Your task to perform on an android device: toggle priority inbox in the gmail app Image 0: 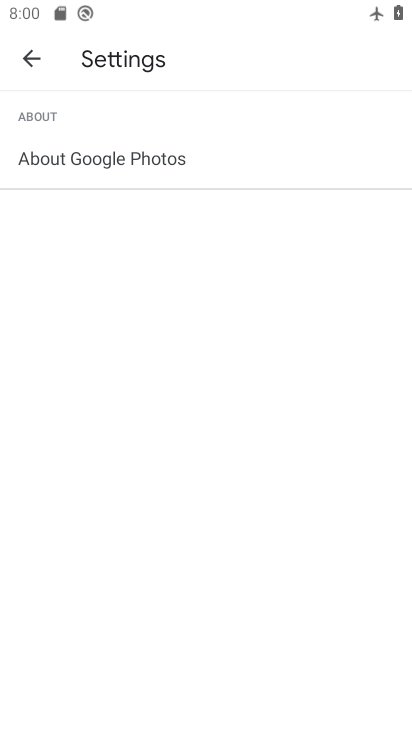
Step 0: click (209, 613)
Your task to perform on an android device: toggle priority inbox in the gmail app Image 1: 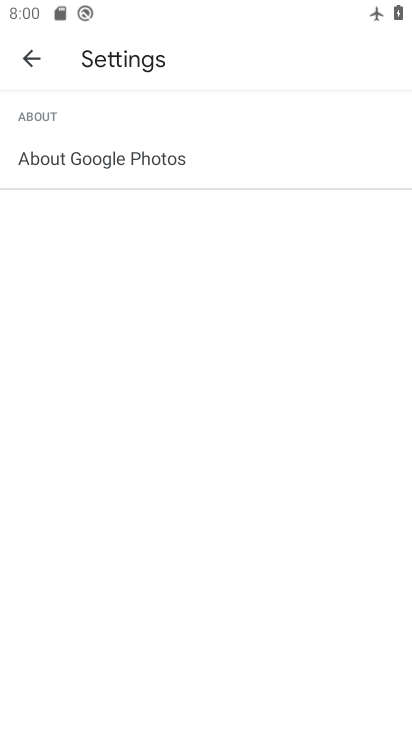
Step 1: press home button
Your task to perform on an android device: toggle priority inbox in the gmail app Image 2: 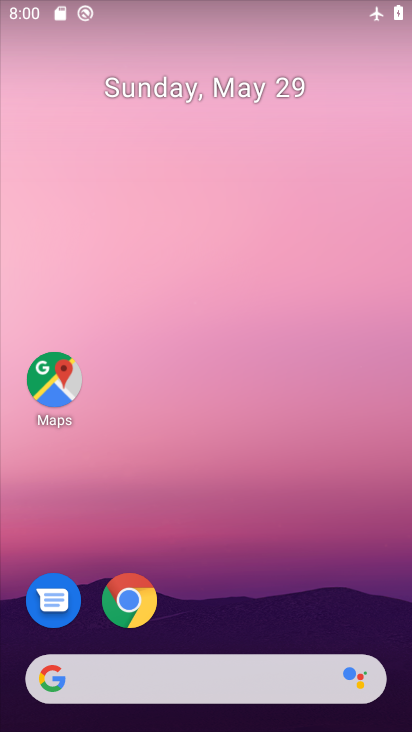
Step 2: drag from (242, 604) to (225, 6)
Your task to perform on an android device: toggle priority inbox in the gmail app Image 3: 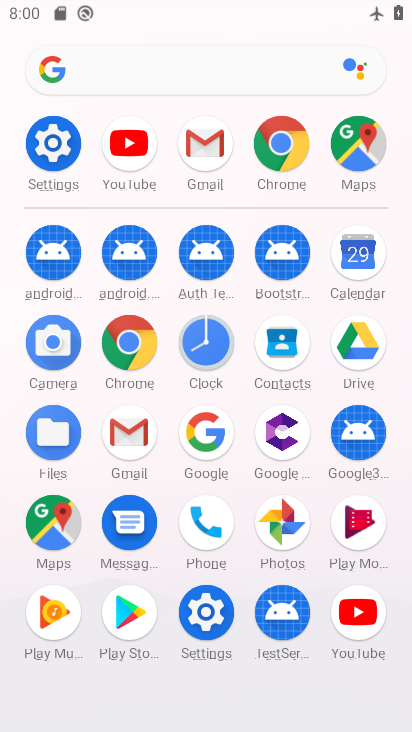
Step 3: click (123, 434)
Your task to perform on an android device: toggle priority inbox in the gmail app Image 4: 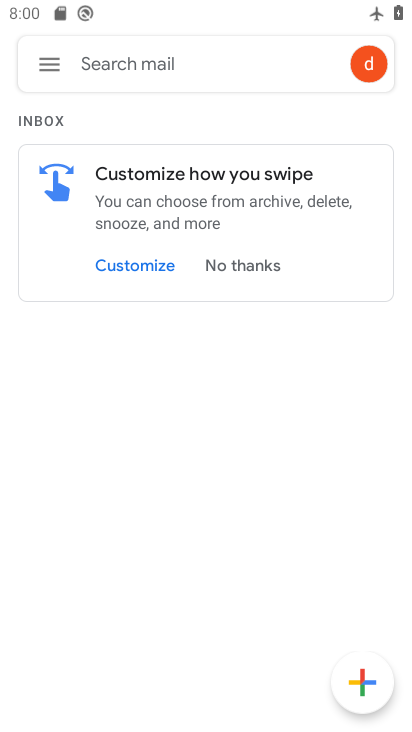
Step 4: click (56, 67)
Your task to perform on an android device: toggle priority inbox in the gmail app Image 5: 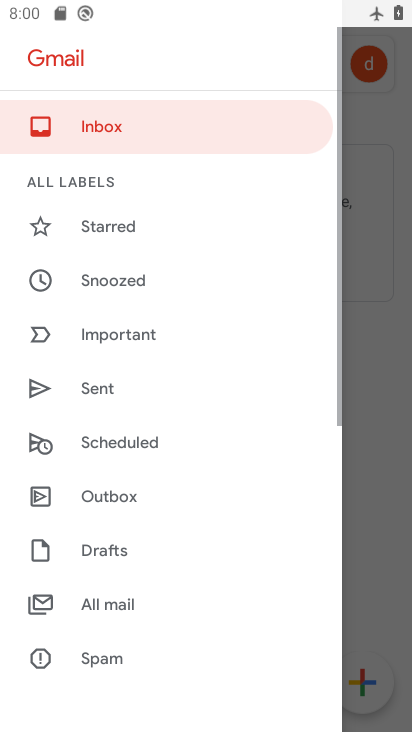
Step 5: drag from (152, 583) to (187, 33)
Your task to perform on an android device: toggle priority inbox in the gmail app Image 6: 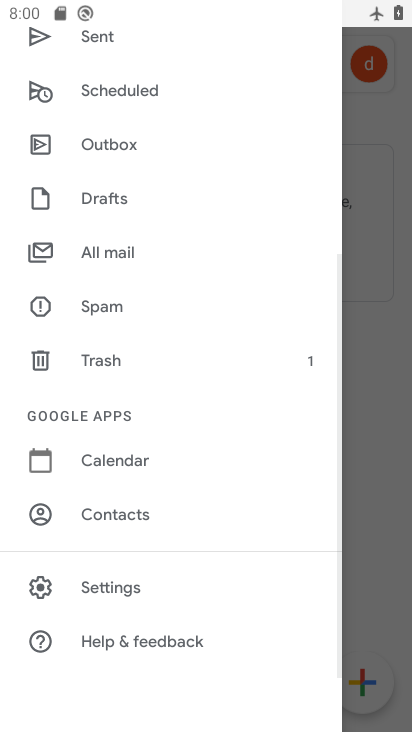
Step 6: click (134, 594)
Your task to perform on an android device: toggle priority inbox in the gmail app Image 7: 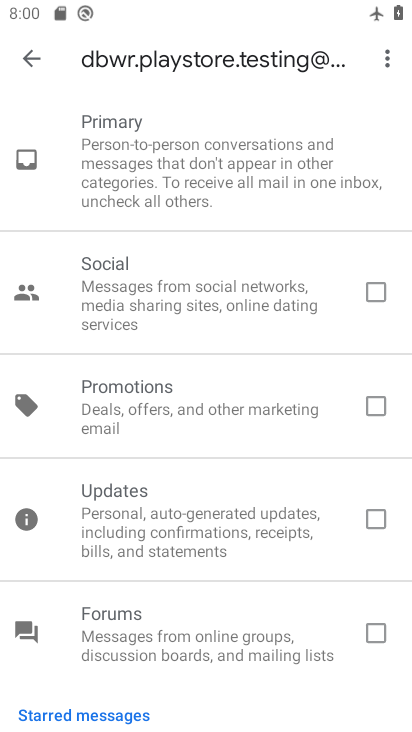
Step 7: click (37, 52)
Your task to perform on an android device: toggle priority inbox in the gmail app Image 8: 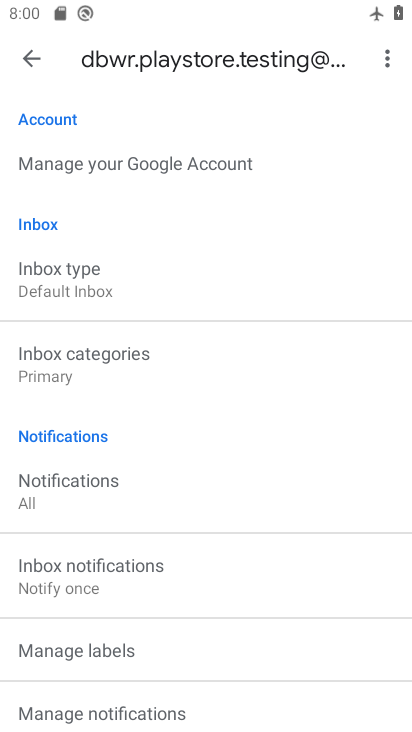
Step 8: click (101, 272)
Your task to perform on an android device: toggle priority inbox in the gmail app Image 9: 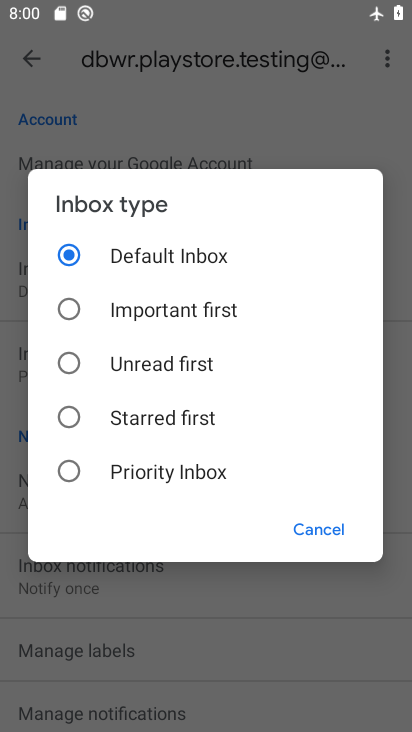
Step 9: click (112, 470)
Your task to perform on an android device: toggle priority inbox in the gmail app Image 10: 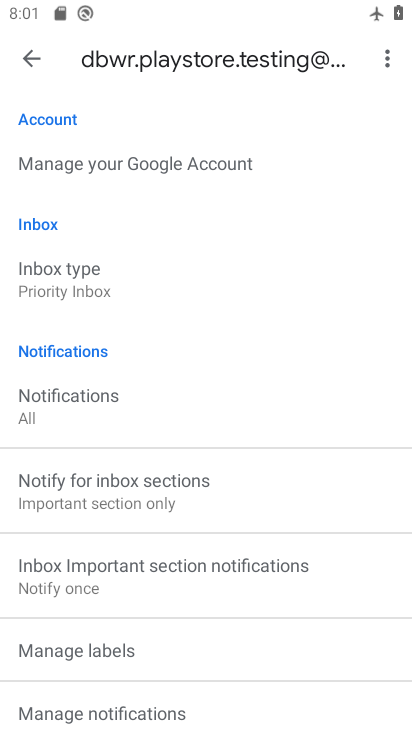
Step 10: task complete